Your task to perform on an android device: Go to Google maps Image 0: 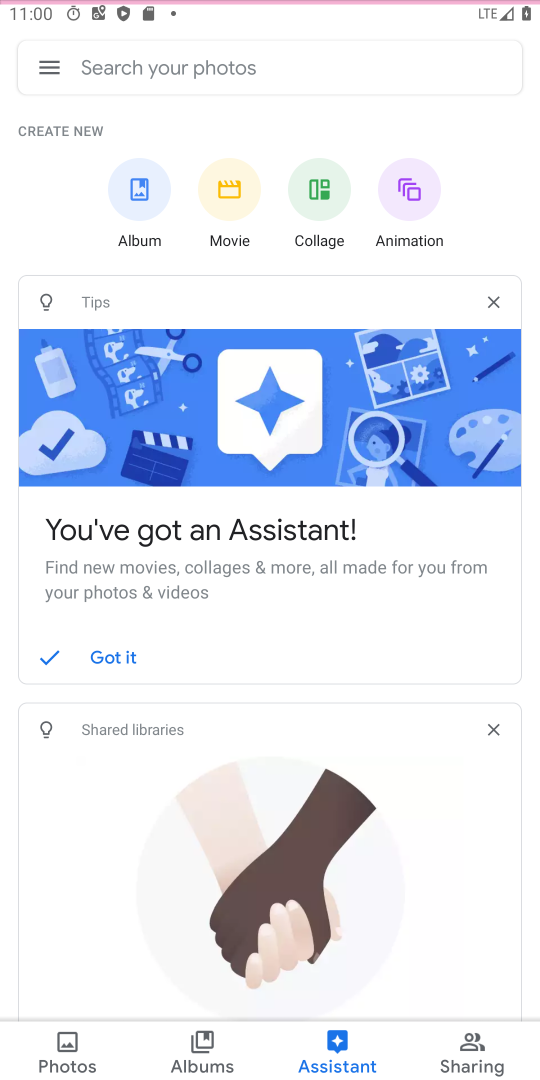
Step 0: press home button
Your task to perform on an android device: Go to Google maps Image 1: 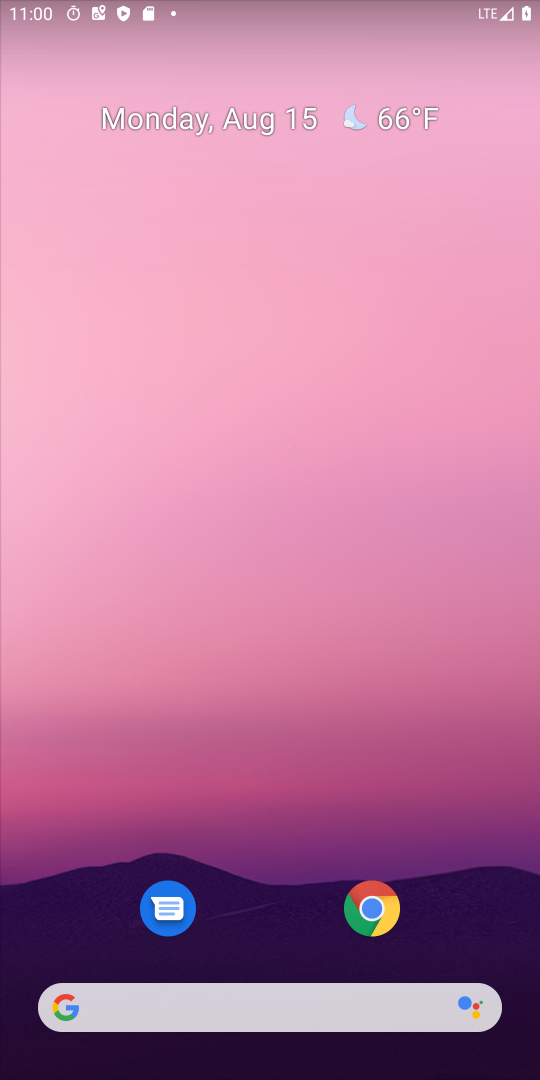
Step 1: drag from (278, 940) to (316, 38)
Your task to perform on an android device: Go to Google maps Image 2: 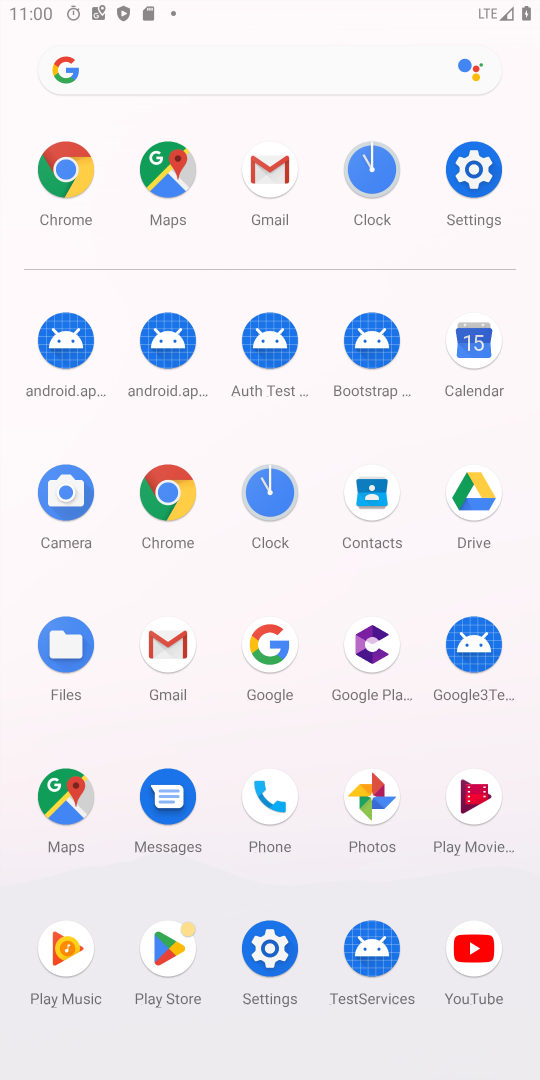
Step 2: click (162, 166)
Your task to perform on an android device: Go to Google maps Image 3: 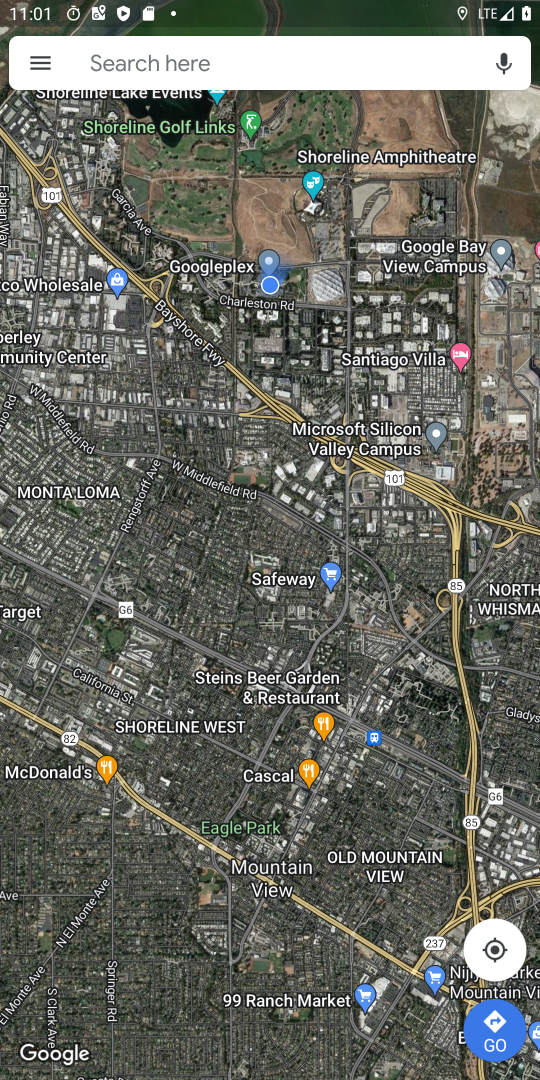
Step 3: task complete